Your task to perform on an android device: Open the stopwatch Image 0: 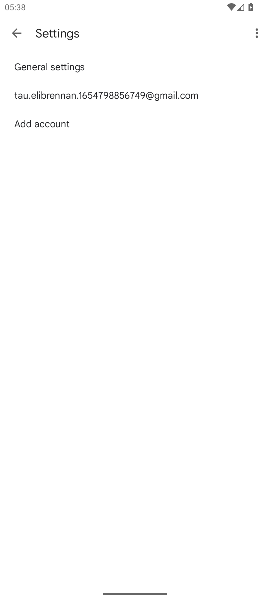
Step 0: press home button
Your task to perform on an android device: Open the stopwatch Image 1: 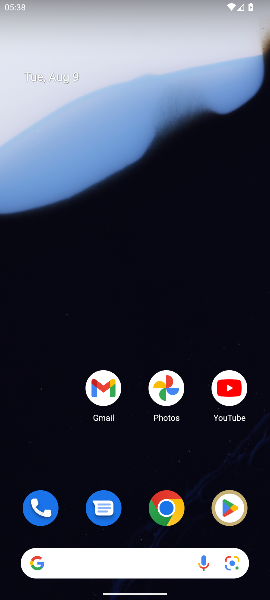
Step 1: drag from (135, 464) to (135, 15)
Your task to perform on an android device: Open the stopwatch Image 2: 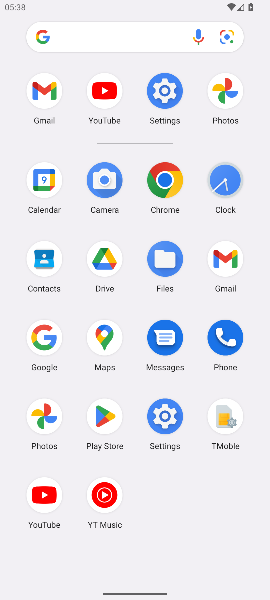
Step 2: click (228, 184)
Your task to perform on an android device: Open the stopwatch Image 3: 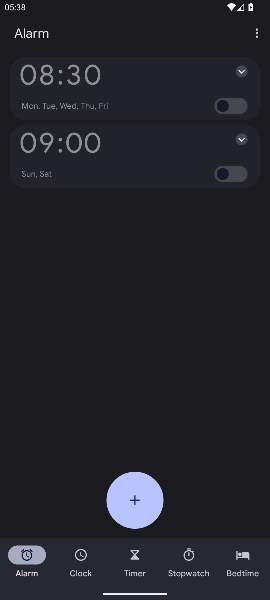
Step 3: click (188, 571)
Your task to perform on an android device: Open the stopwatch Image 4: 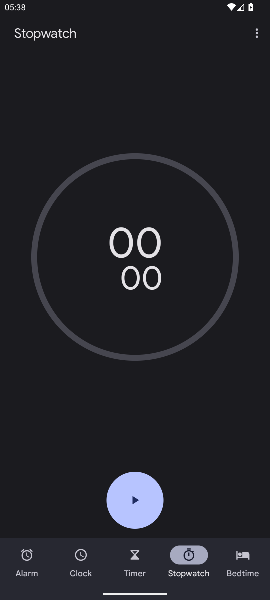
Step 4: task complete